Your task to perform on an android device: Do I have any events this weekend? Image 0: 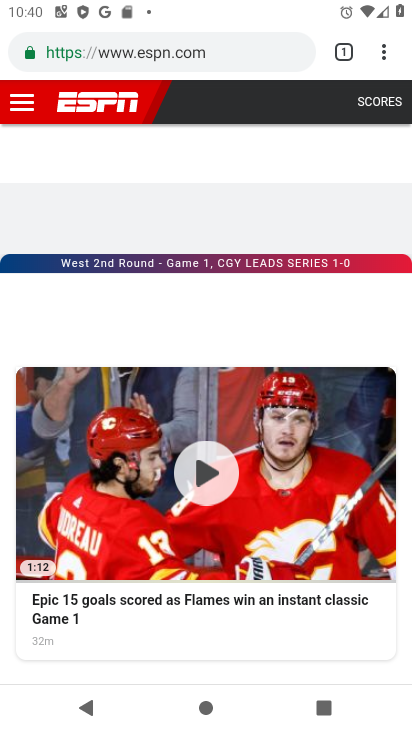
Step 0: press home button
Your task to perform on an android device: Do I have any events this weekend? Image 1: 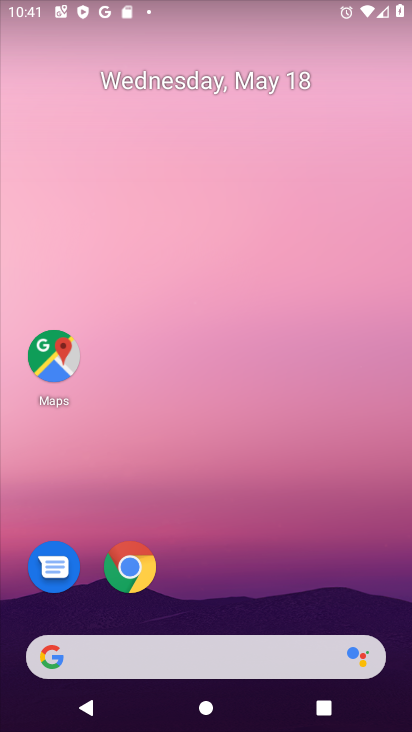
Step 1: drag from (196, 670) to (177, 248)
Your task to perform on an android device: Do I have any events this weekend? Image 2: 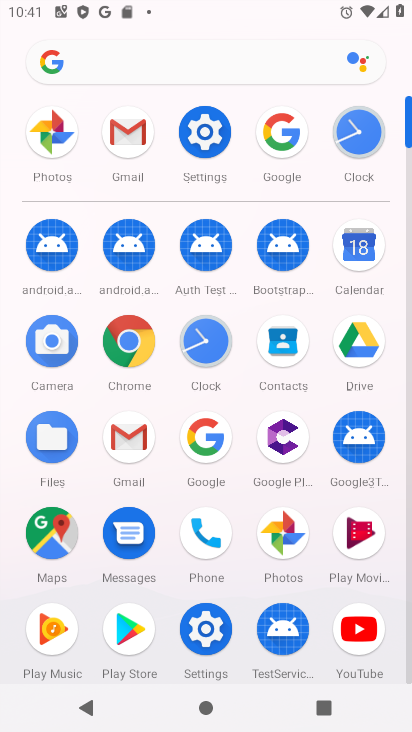
Step 2: click (351, 256)
Your task to perform on an android device: Do I have any events this weekend? Image 3: 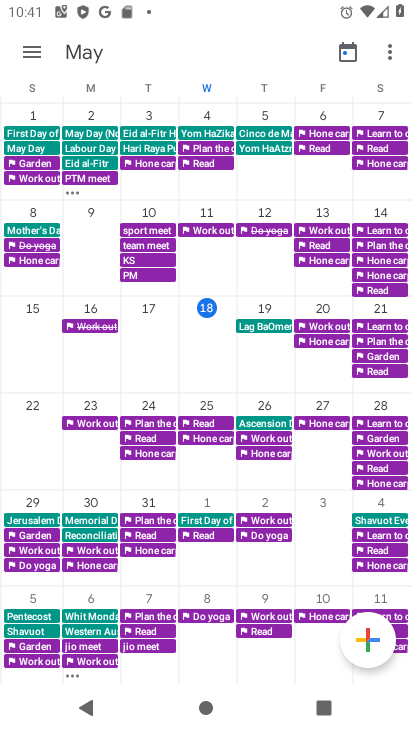
Step 3: click (24, 62)
Your task to perform on an android device: Do I have any events this weekend? Image 4: 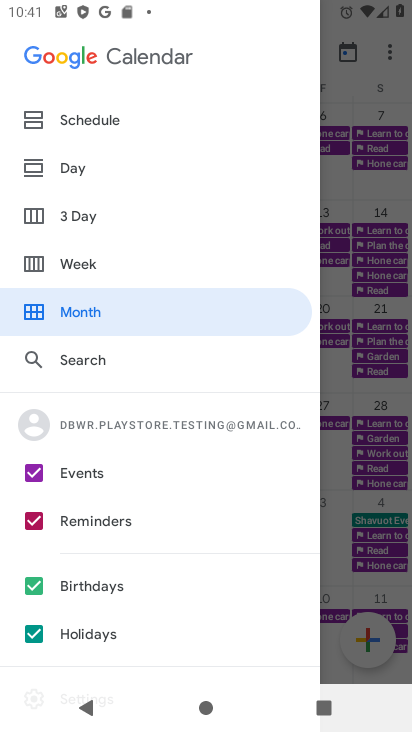
Step 4: click (74, 260)
Your task to perform on an android device: Do I have any events this weekend? Image 5: 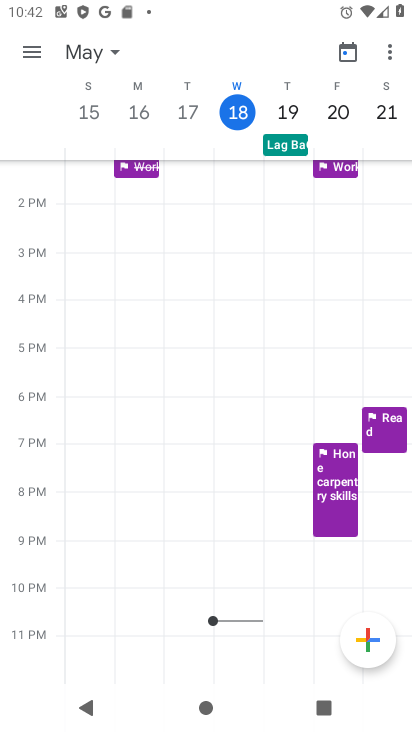
Step 5: task complete